Your task to perform on an android device: change the clock display to show seconds Image 0: 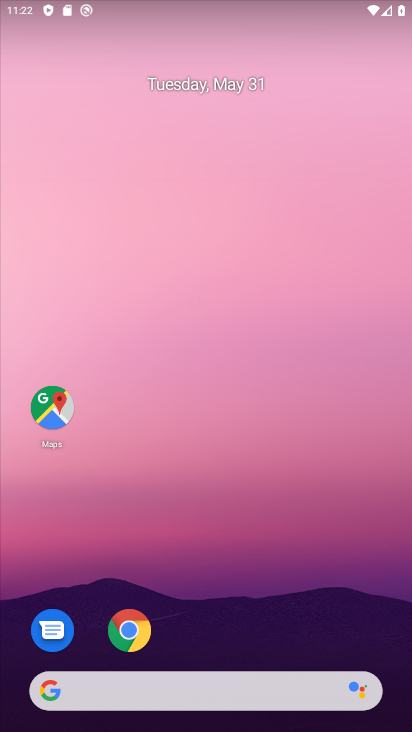
Step 0: drag from (286, 602) to (319, 3)
Your task to perform on an android device: change the clock display to show seconds Image 1: 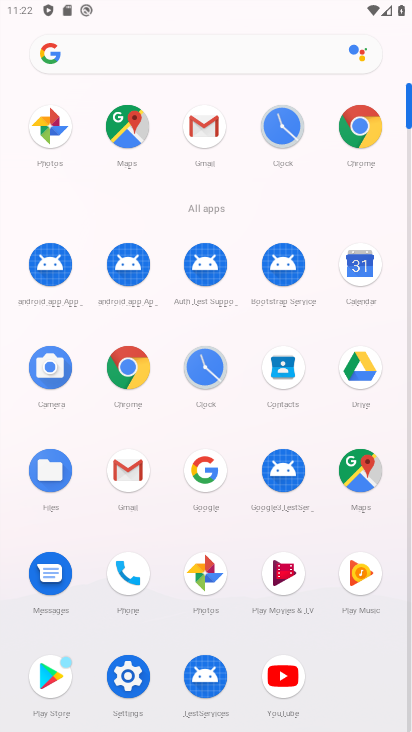
Step 1: click (274, 126)
Your task to perform on an android device: change the clock display to show seconds Image 2: 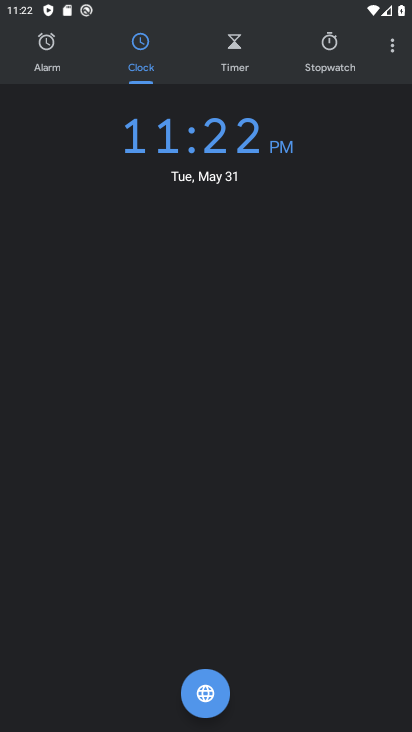
Step 2: click (388, 47)
Your task to perform on an android device: change the clock display to show seconds Image 3: 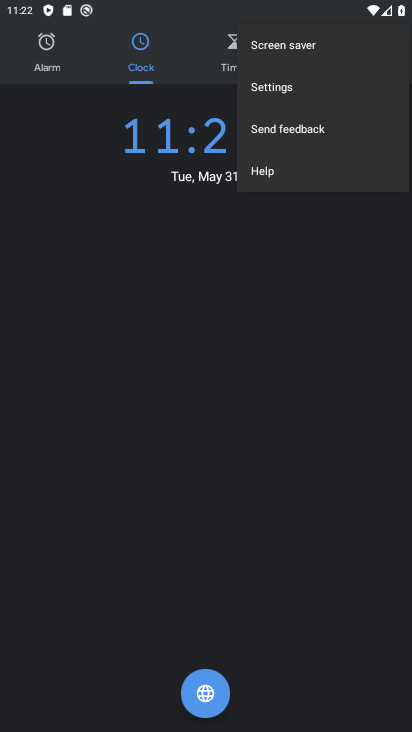
Step 3: click (276, 94)
Your task to perform on an android device: change the clock display to show seconds Image 4: 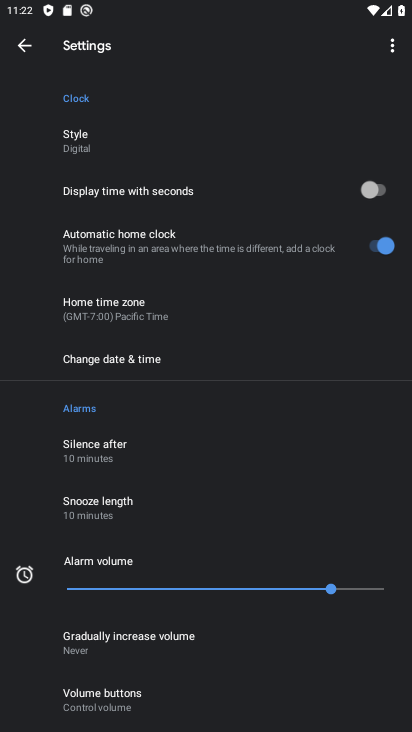
Step 4: click (365, 182)
Your task to perform on an android device: change the clock display to show seconds Image 5: 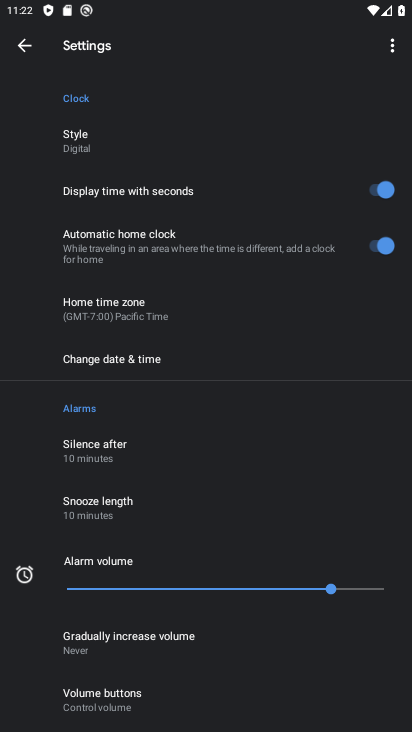
Step 5: task complete